Your task to perform on an android device: Go to Reddit.com Image 0: 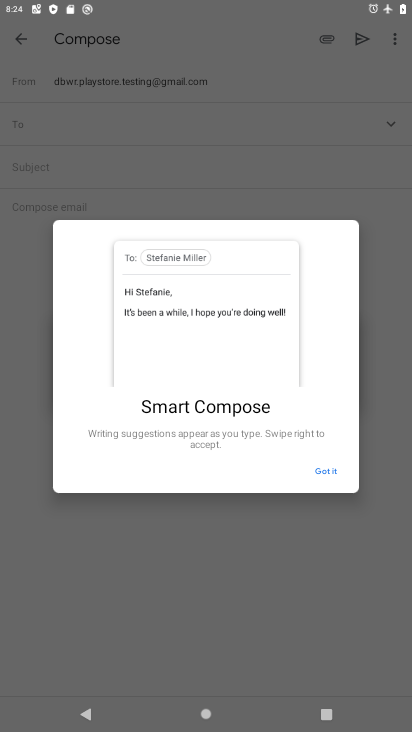
Step 0: press home button
Your task to perform on an android device: Go to Reddit.com Image 1: 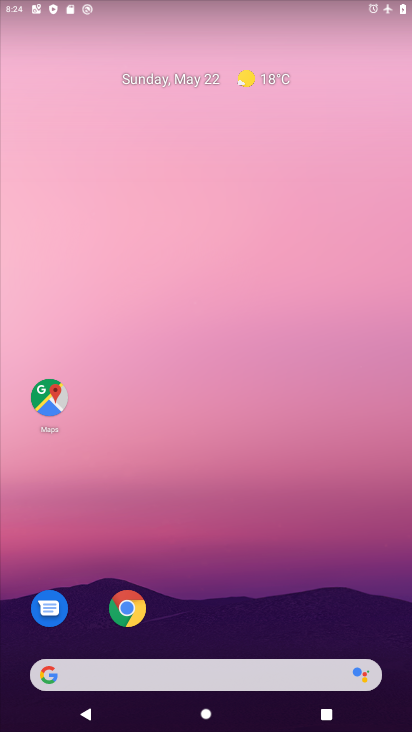
Step 1: click (126, 610)
Your task to perform on an android device: Go to Reddit.com Image 2: 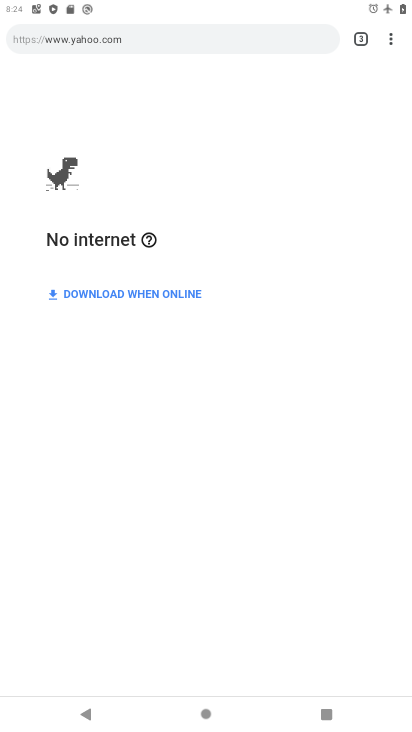
Step 2: task complete